Your task to perform on an android device: Show me popular videos on Youtube Image 0: 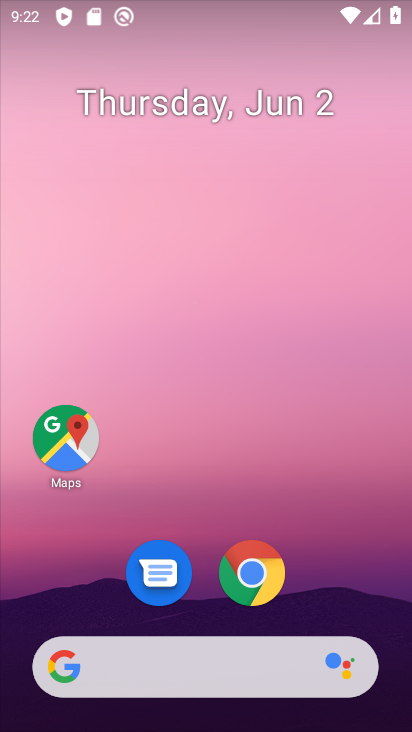
Step 0: drag from (358, 560) to (280, 133)
Your task to perform on an android device: Show me popular videos on Youtube Image 1: 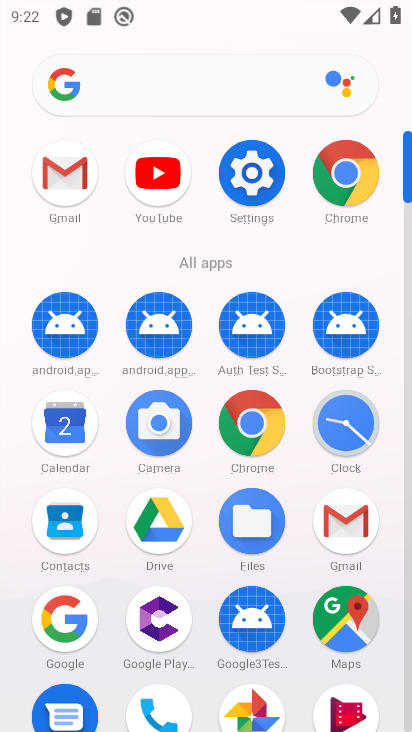
Step 1: click (164, 173)
Your task to perform on an android device: Show me popular videos on Youtube Image 2: 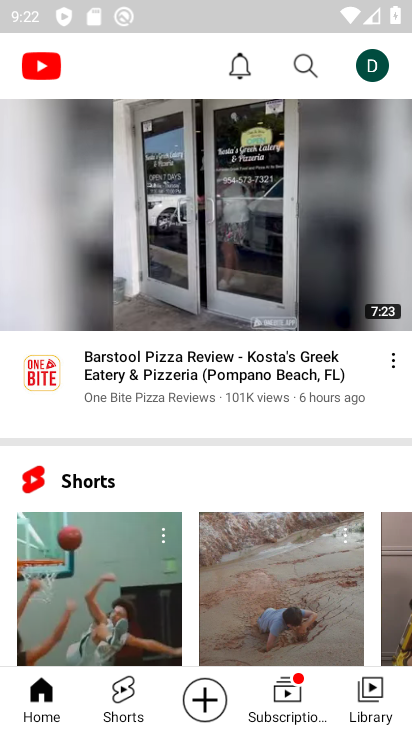
Step 2: click (52, 703)
Your task to perform on an android device: Show me popular videos on Youtube Image 3: 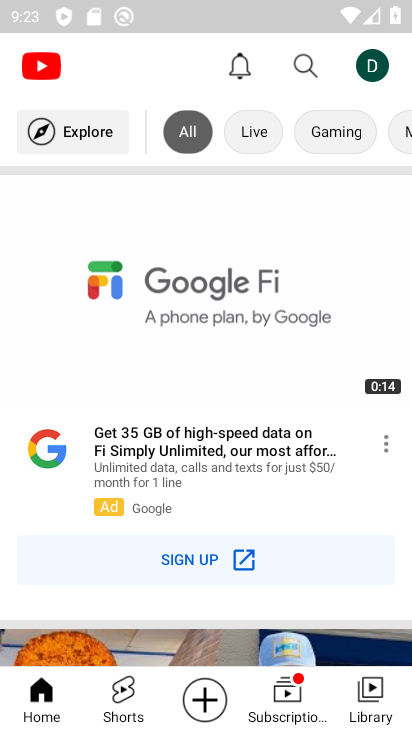
Step 3: drag from (288, 134) to (295, 303)
Your task to perform on an android device: Show me popular videos on Youtube Image 4: 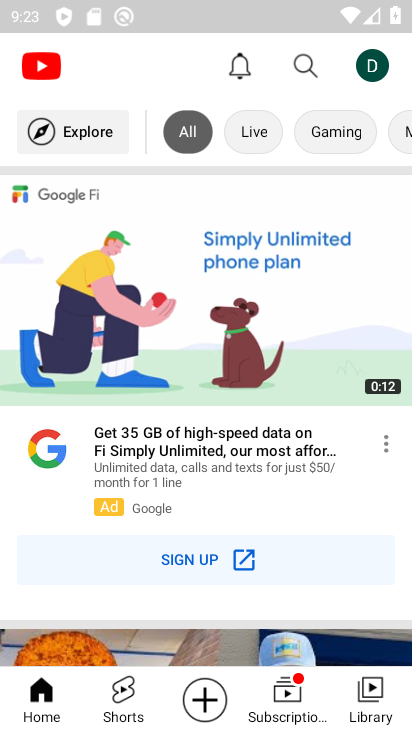
Step 4: drag from (368, 135) to (35, 152)
Your task to perform on an android device: Show me popular videos on Youtube Image 5: 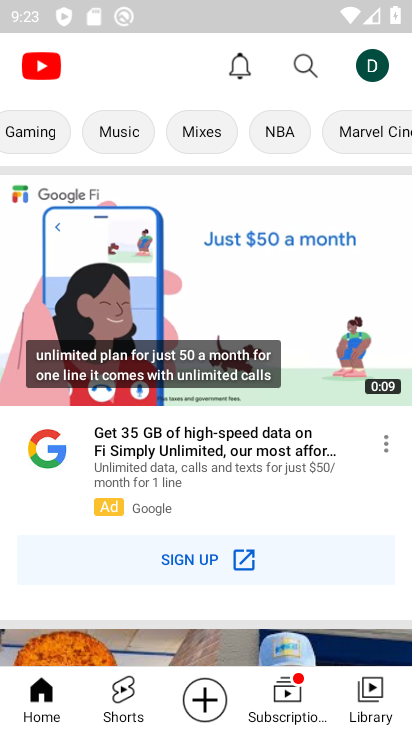
Step 5: drag from (353, 135) to (6, 147)
Your task to perform on an android device: Show me popular videos on Youtube Image 6: 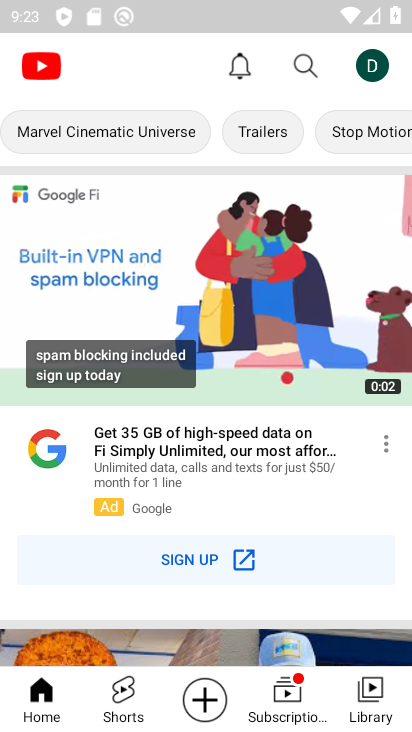
Step 6: drag from (360, 130) to (16, 136)
Your task to perform on an android device: Show me popular videos on Youtube Image 7: 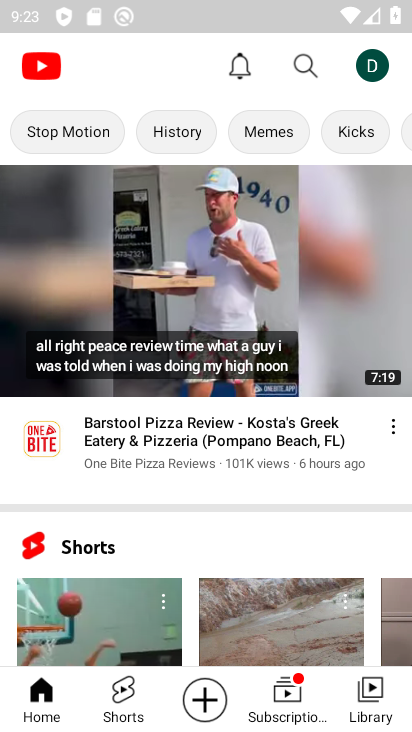
Step 7: drag from (321, 136) to (1, 169)
Your task to perform on an android device: Show me popular videos on Youtube Image 8: 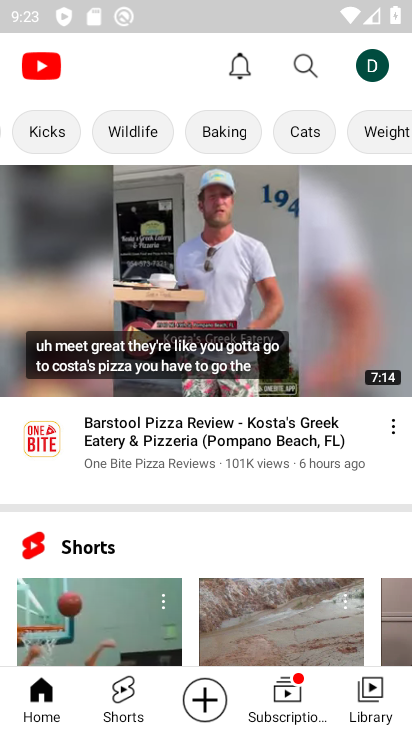
Step 8: drag from (341, 138) to (0, 128)
Your task to perform on an android device: Show me popular videos on Youtube Image 9: 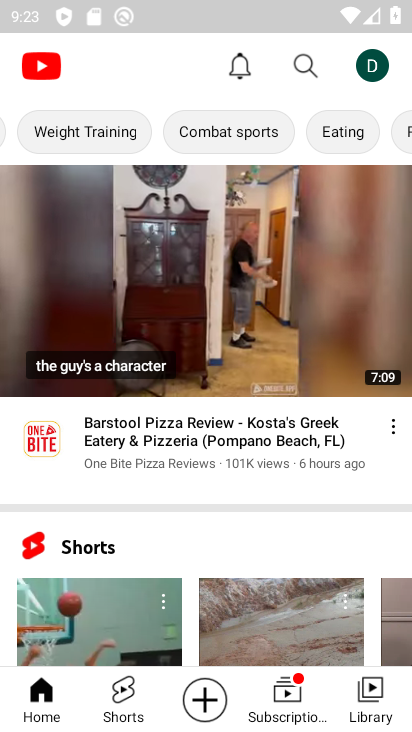
Step 9: drag from (384, 123) to (18, 121)
Your task to perform on an android device: Show me popular videos on Youtube Image 10: 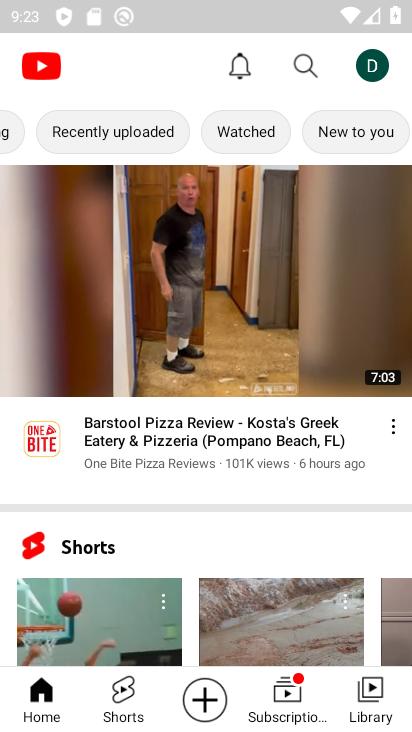
Step 10: click (376, 125)
Your task to perform on an android device: Show me popular videos on Youtube Image 11: 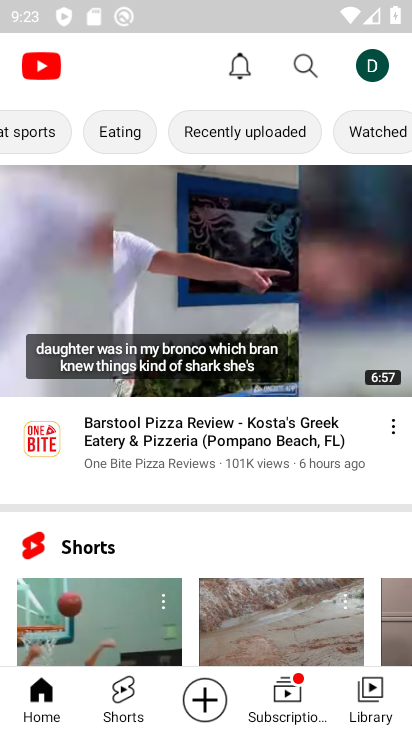
Step 11: drag from (12, 134) to (396, 144)
Your task to perform on an android device: Show me popular videos on Youtube Image 12: 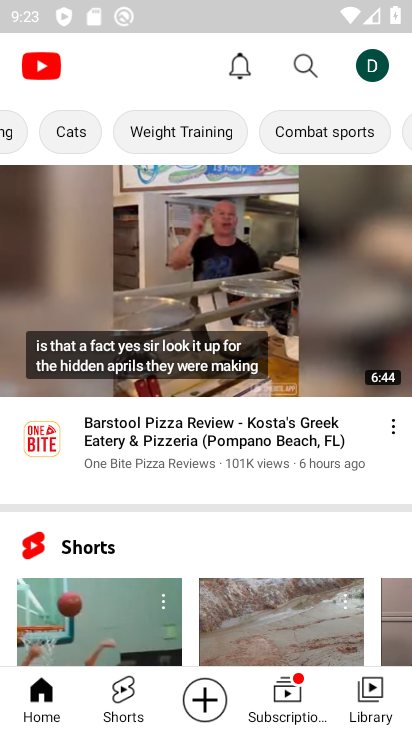
Step 12: drag from (51, 144) to (400, 136)
Your task to perform on an android device: Show me popular videos on Youtube Image 13: 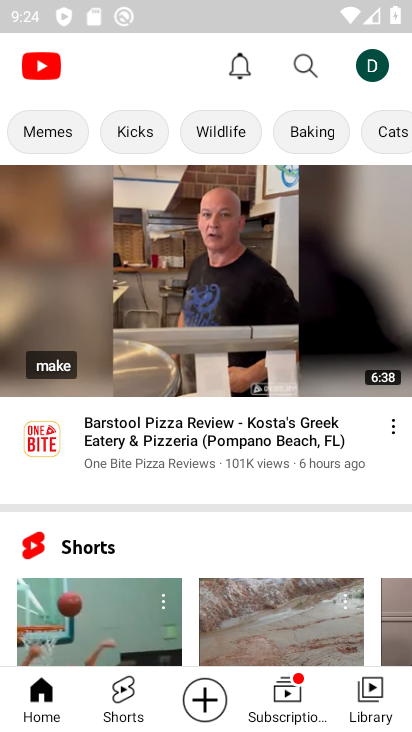
Step 13: drag from (66, 140) to (405, 114)
Your task to perform on an android device: Show me popular videos on Youtube Image 14: 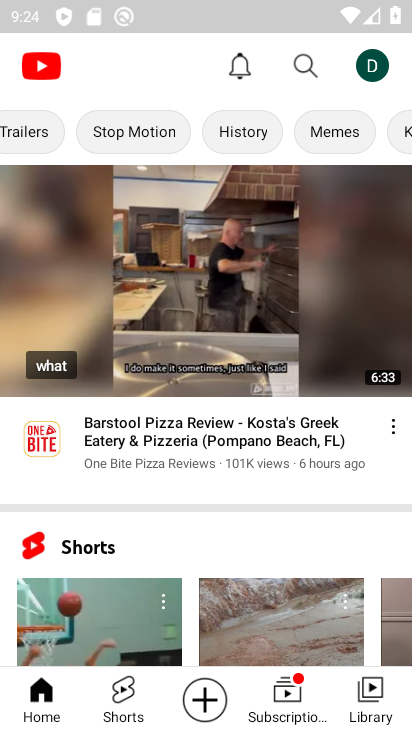
Step 14: drag from (80, 124) to (404, 128)
Your task to perform on an android device: Show me popular videos on Youtube Image 15: 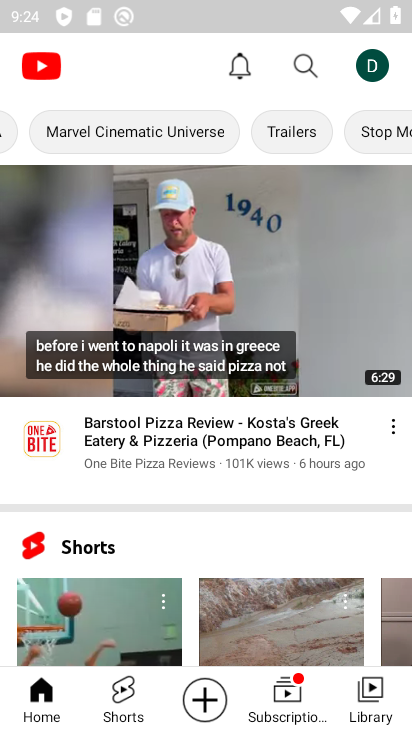
Step 15: drag from (23, 129) to (399, 123)
Your task to perform on an android device: Show me popular videos on Youtube Image 16: 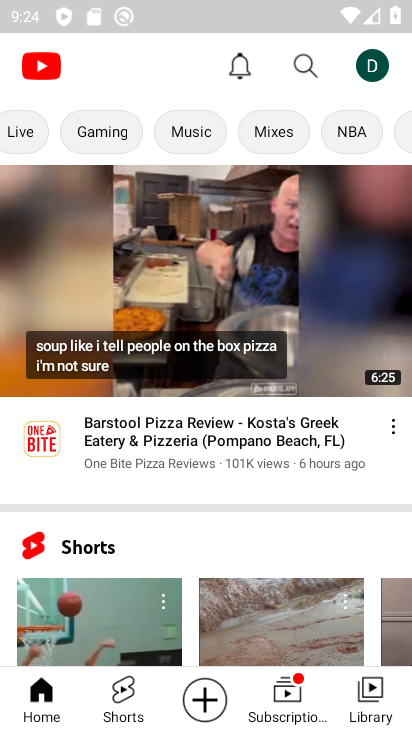
Step 16: drag from (37, 139) to (387, 130)
Your task to perform on an android device: Show me popular videos on Youtube Image 17: 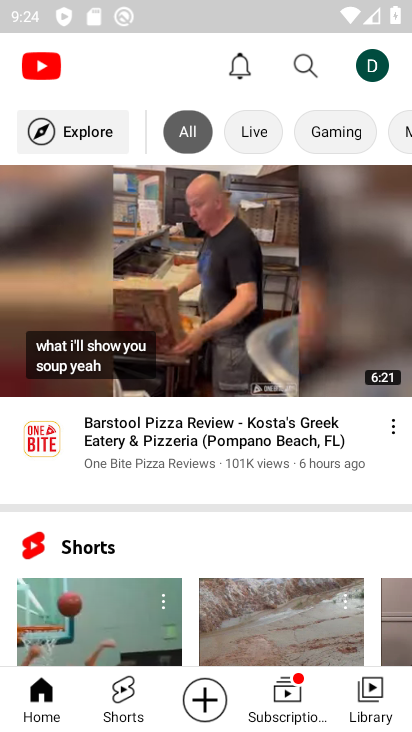
Step 17: click (84, 136)
Your task to perform on an android device: Show me popular videos on Youtube Image 18: 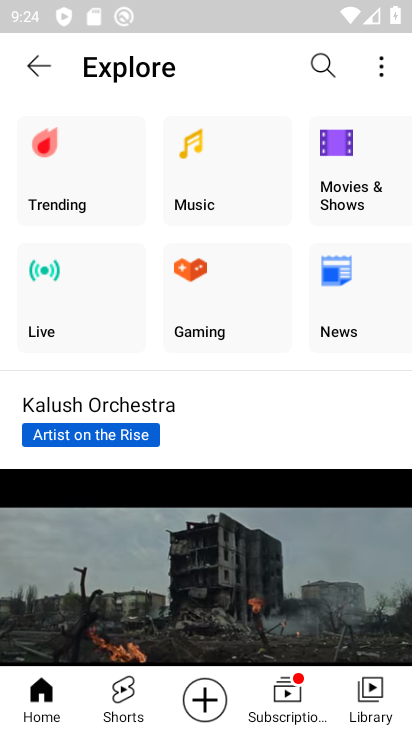
Step 18: task complete